Your task to perform on an android device: Open the map Image 0: 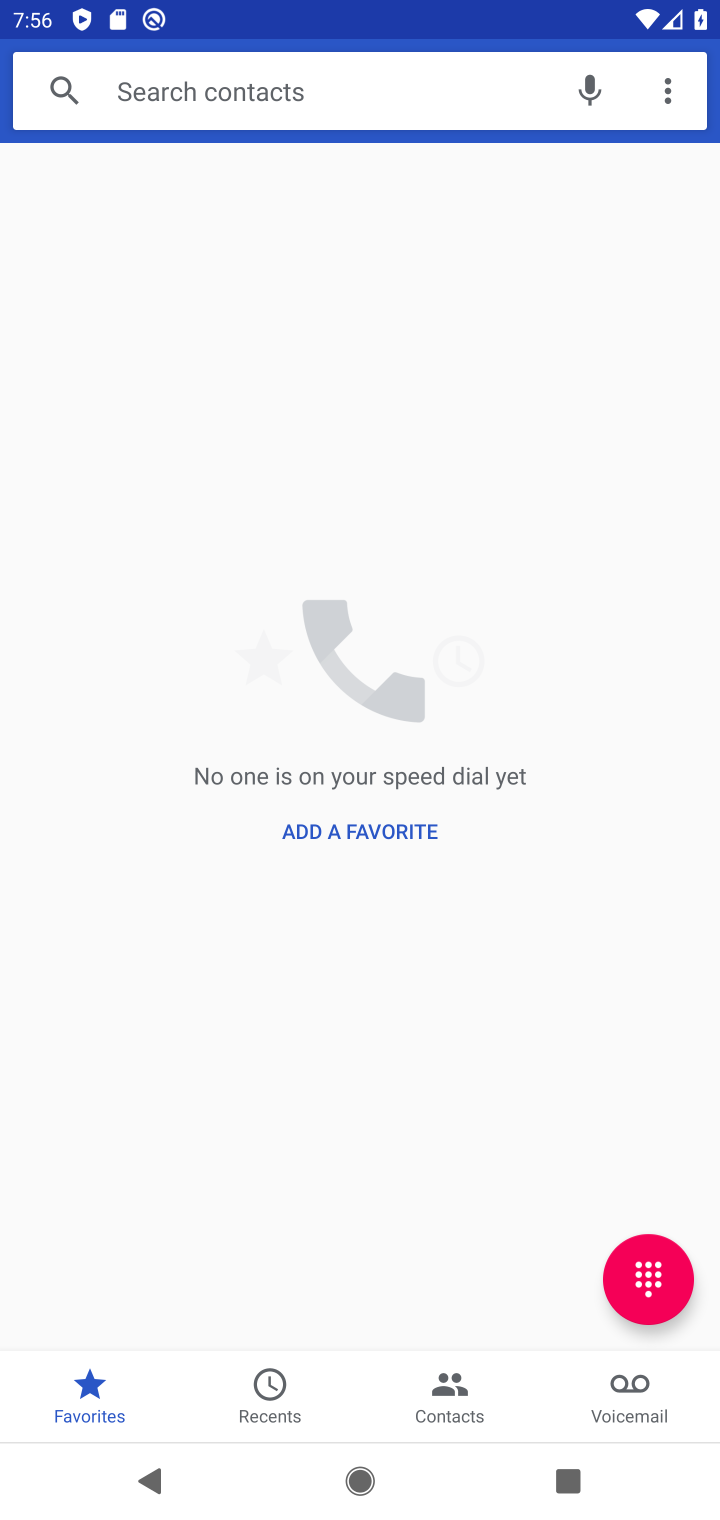
Step 0: press home button
Your task to perform on an android device: Open the map Image 1: 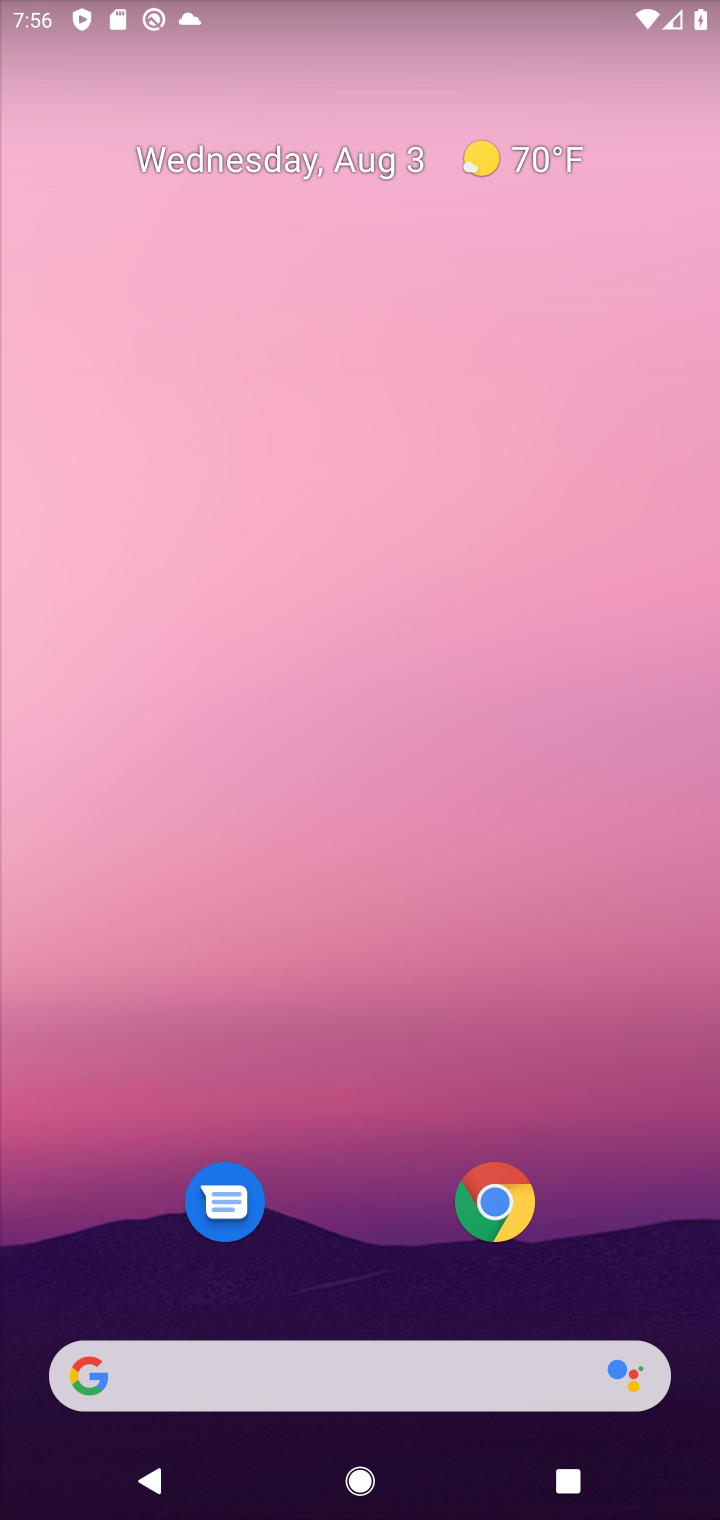
Step 1: drag from (292, 1375) to (378, 360)
Your task to perform on an android device: Open the map Image 2: 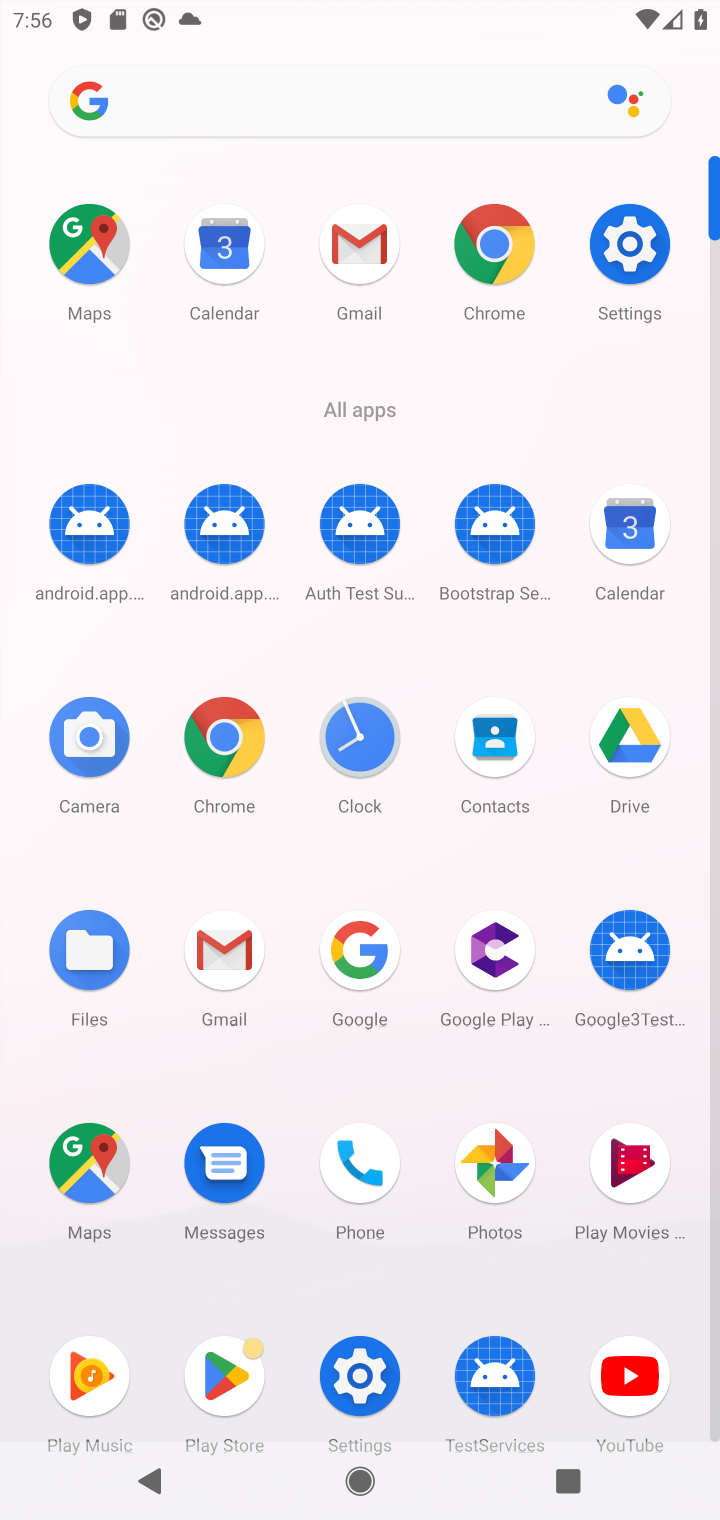
Step 2: click (85, 247)
Your task to perform on an android device: Open the map Image 3: 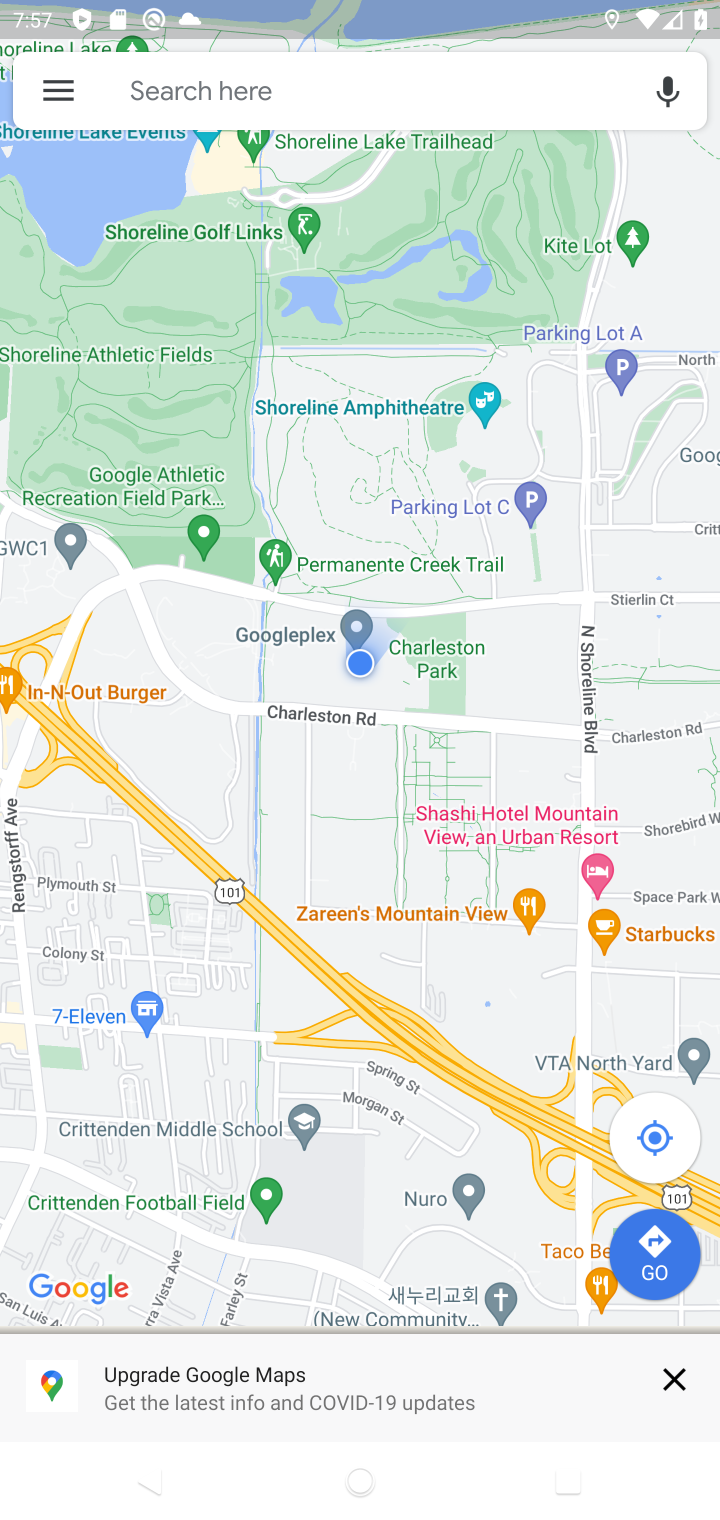
Step 3: task complete